Your task to perform on an android device: Open calendar and show me the fourth week of next month Image 0: 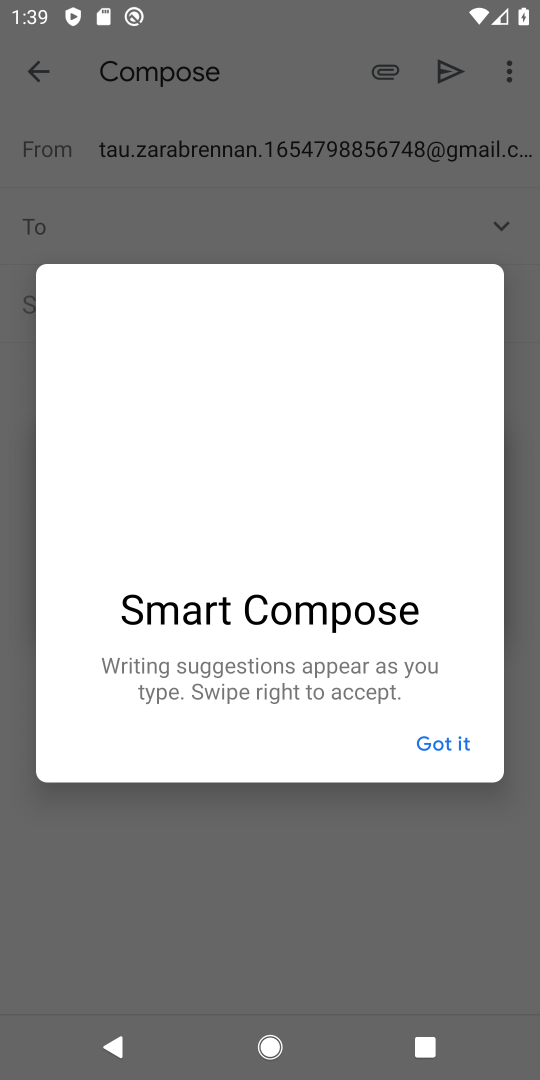
Step 0: press home button
Your task to perform on an android device: Open calendar and show me the fourth week of next month Image 1: 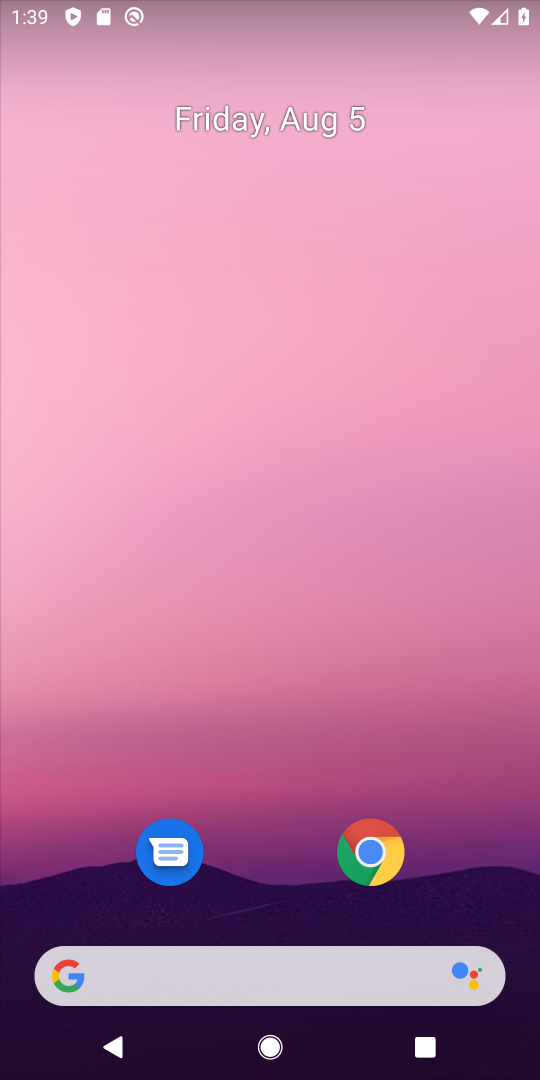
Step 1: drag from (262, 806) to (262, 144)
Your task to perform on an android device: Open calendar and show me the fourth week of next month Image 2: 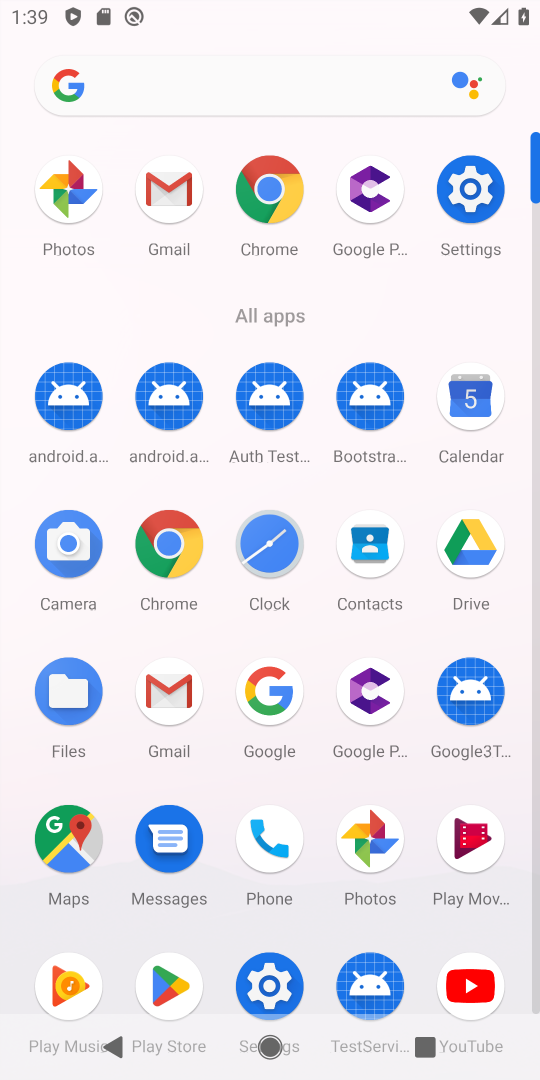
Step 2: click (470, 400)
Your task to perform on an android device: Open calendar and show me the fourth week of next month Image 3: 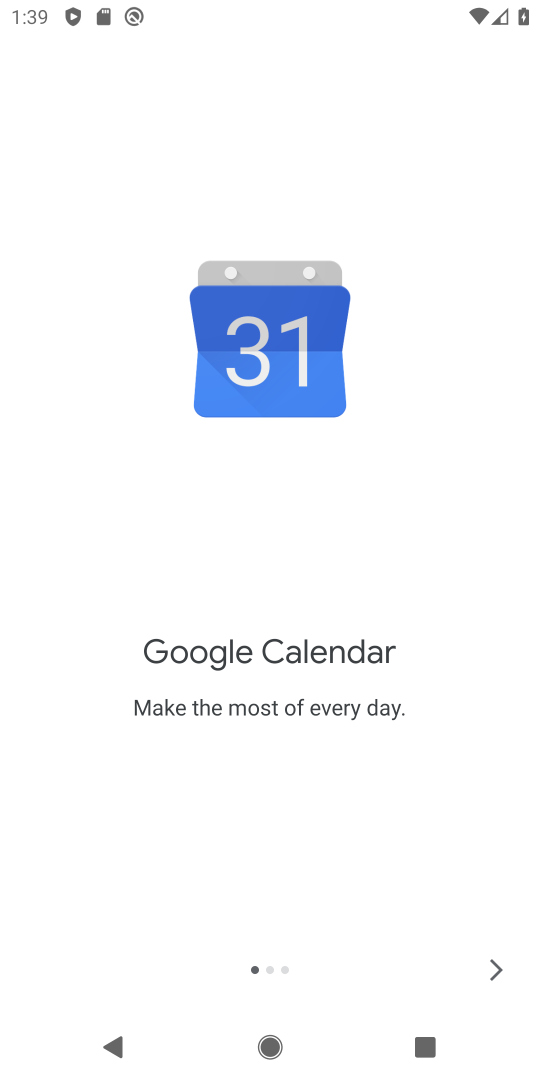
Step 3: click (491, 963)
Your task to perform on an android device: Open calendar and show me the fourth week of next month Image 4: 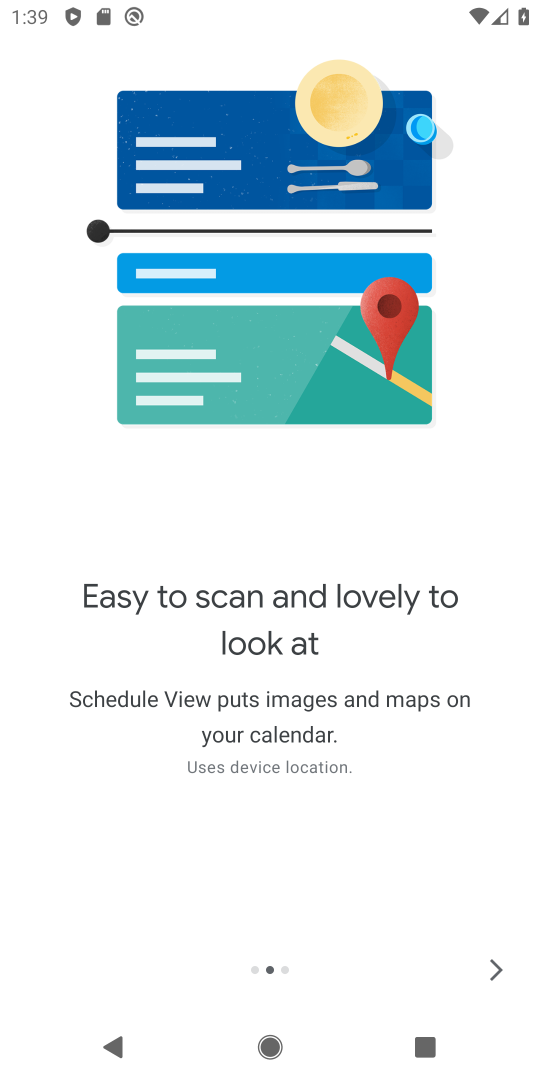
Step 4: click (490, 967)
Your task to perform on an android device: Open calendar and show me the fourth week of next month Image 5: 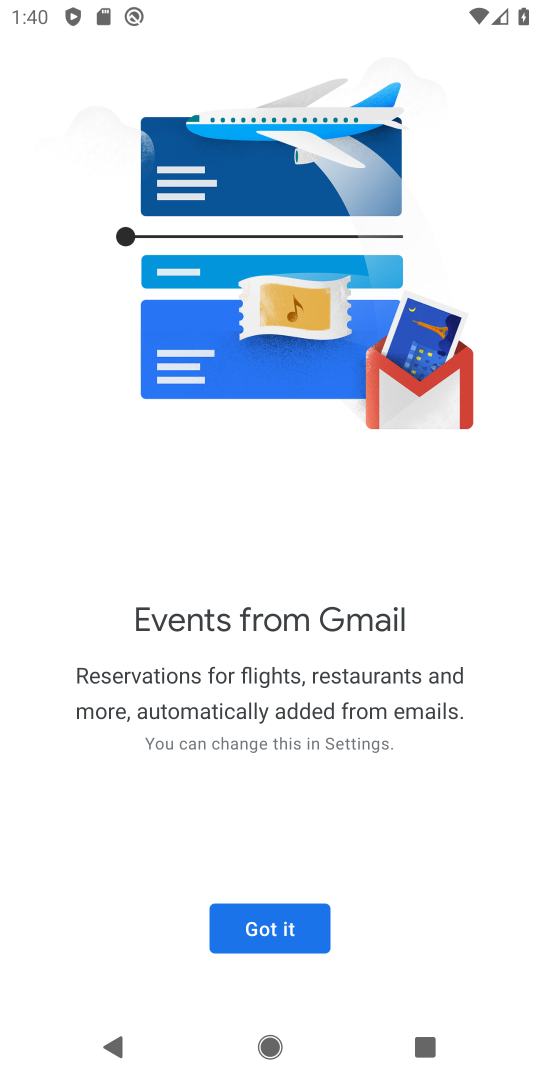
Step 5: click (272, 922)
Your task to perform on an android device: Open calendar and show me the fourth week of next month Image 6: 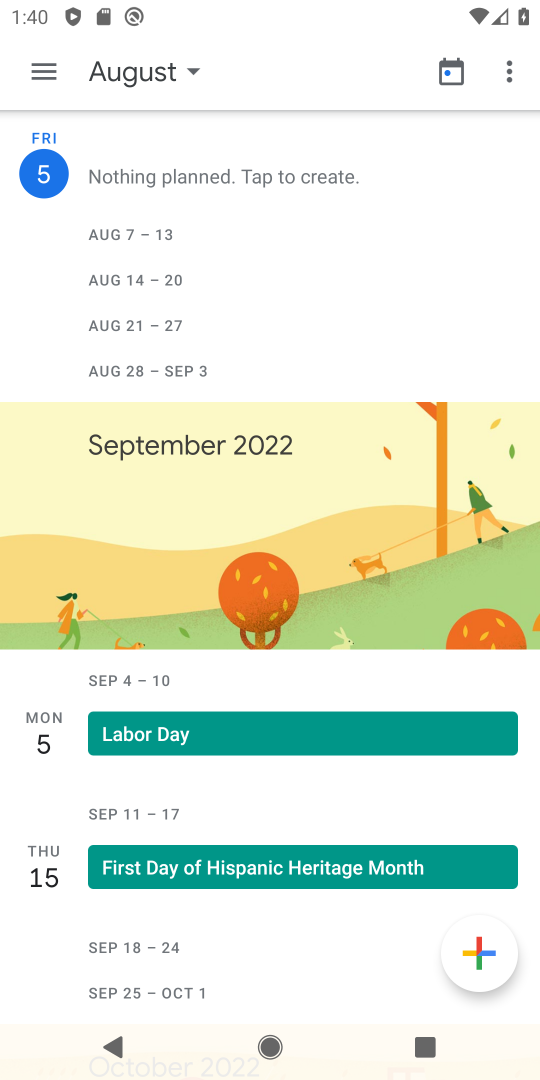
Step 6: click (40, 68)
Your task to perform on an android device: Open calendar and show me the fourth week of next month Image 7: 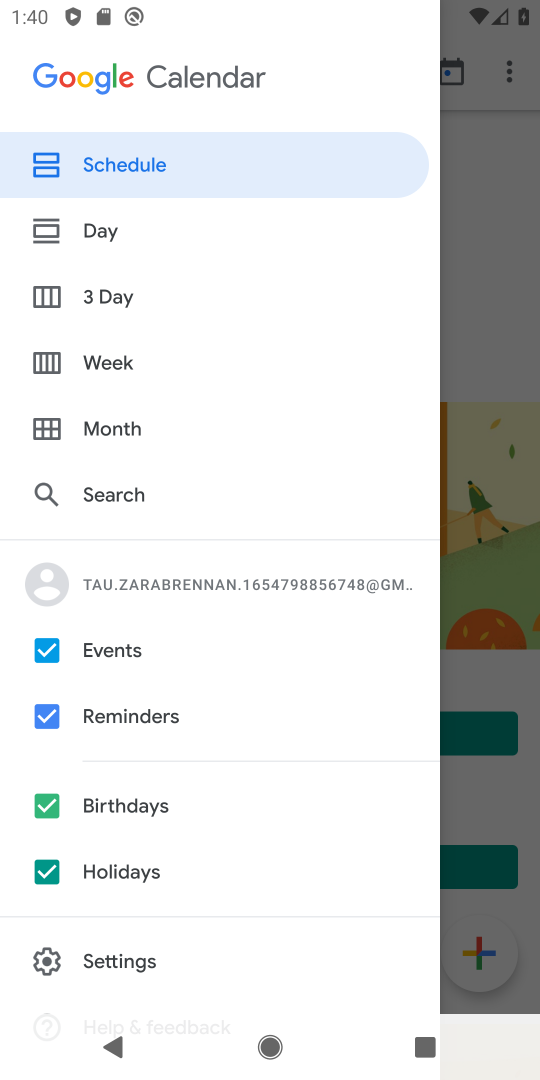
Step 7: click (110, 356)
Your task to perform on an android device: Open calendar and show me the fourth week of next month Image 8: 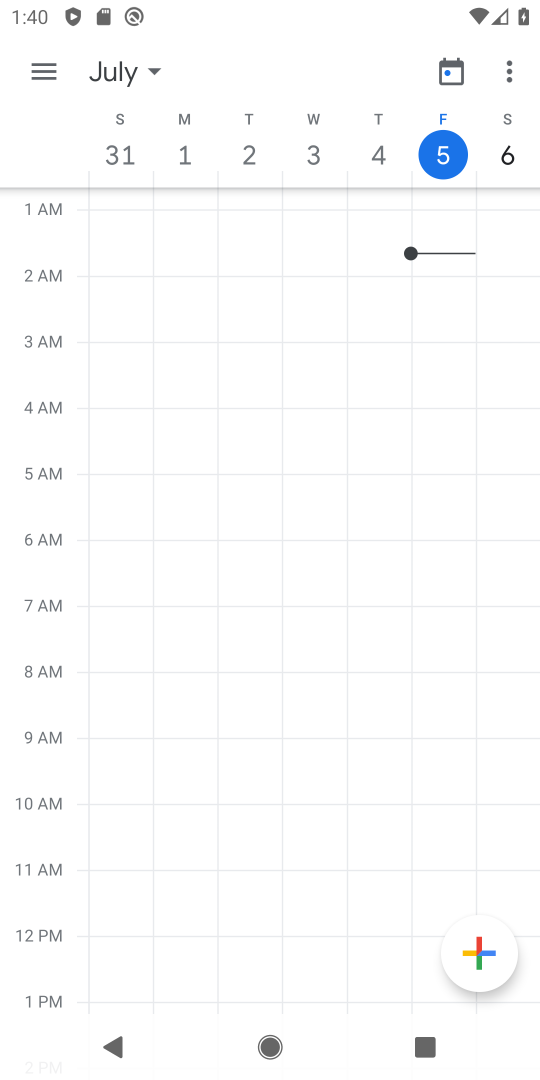
Step 8: click (148, 75)
Your task to perform on an android device: Open calendar and show me the fourth week of next month Image 9: 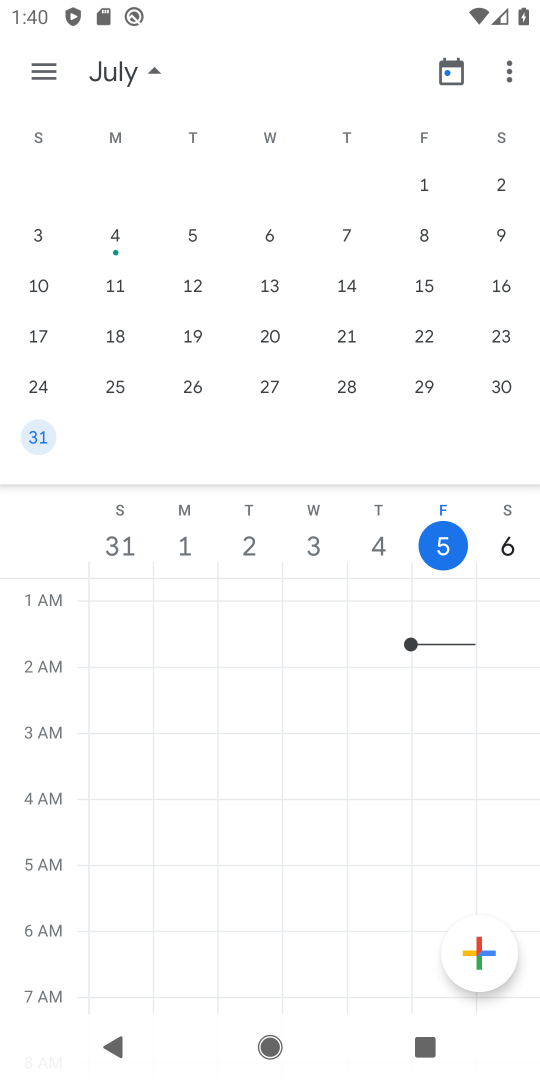
Step 9: drag from (498, 297) to (45, 278)
Your task to perform on an android device: Open calendar and show me the fourth week of next month Image 10: 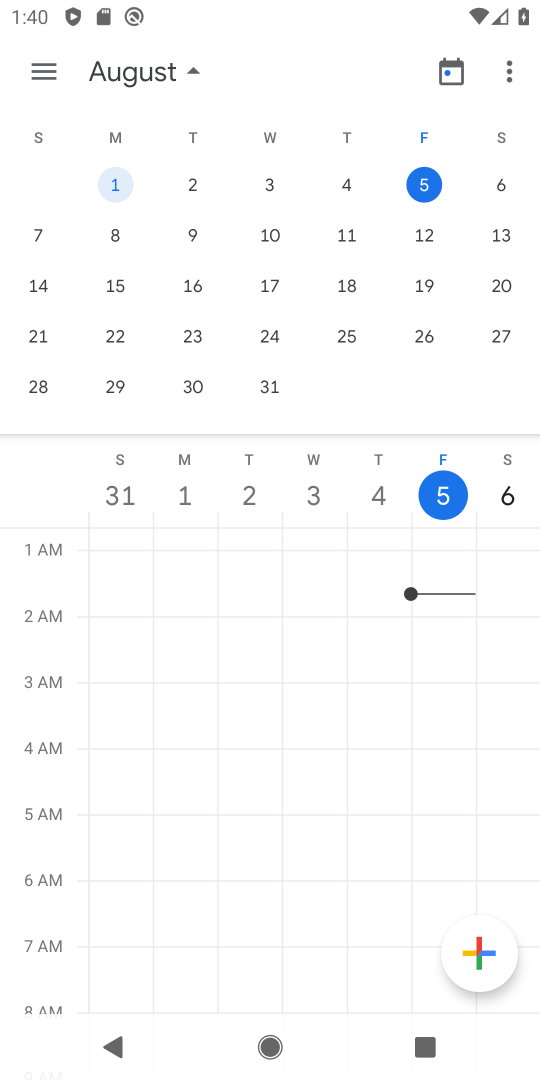
Step 10: drag from (481, 329) to (108, 241)
Your task to perform on an android device: Open calendar and show me the fourth week of next month Image 11: 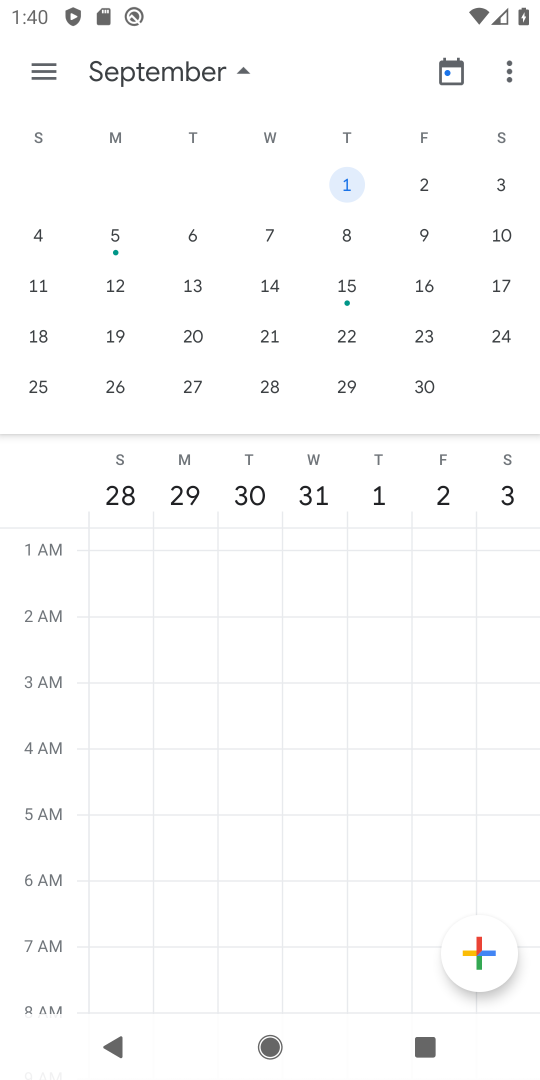
Step 11: click (267, 277)
Your task to perform on an android device: Open calendar and show me the fourth week of next month Image 12: 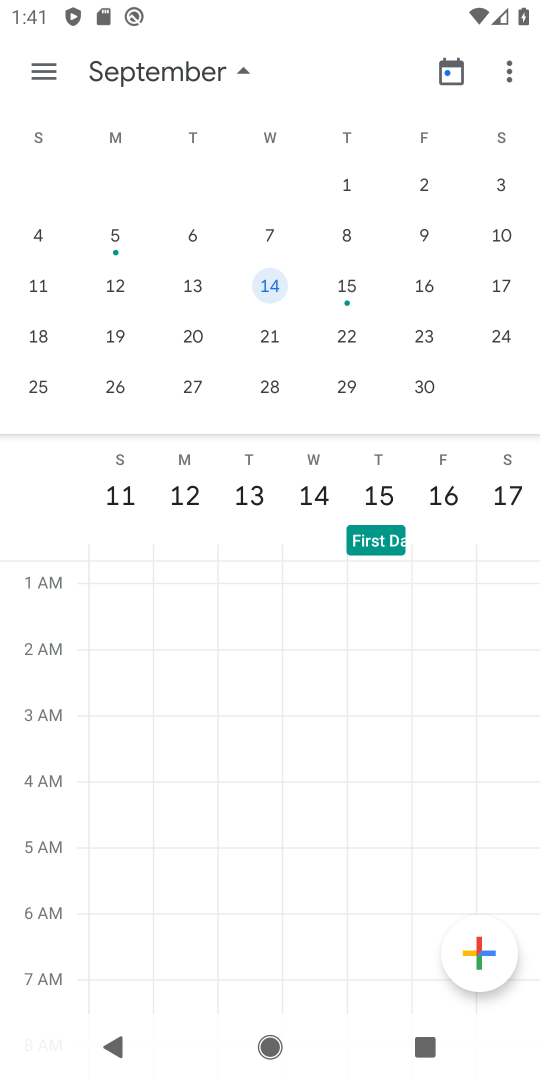
Step 12: click (264, 328)
Your task to perform on an android device: Open calendar and show me the fourth week of next month Image 13: 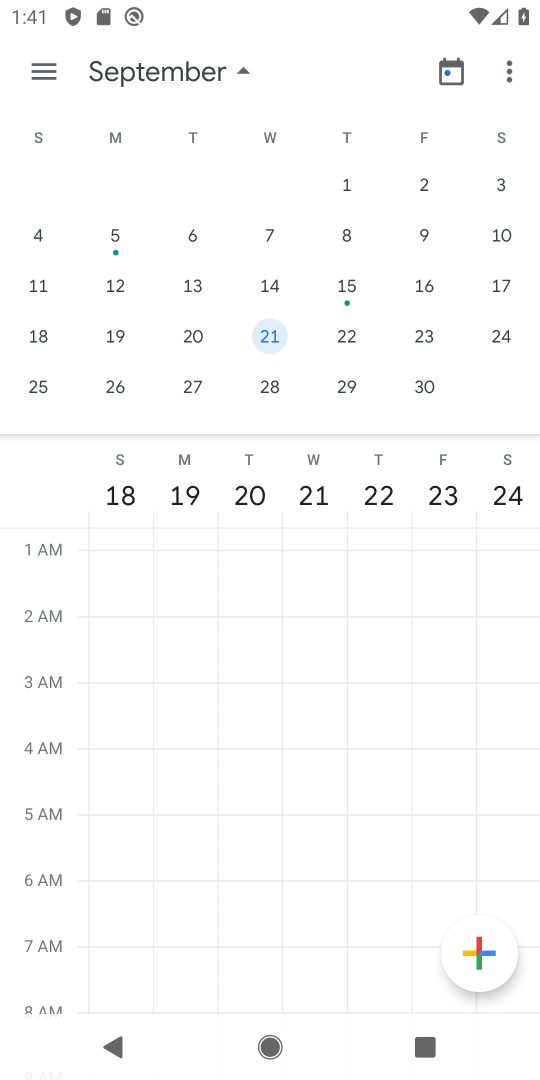
Step 13: task complete